Your task to perform on an android device: turn on translation in the chrome app Image 0: 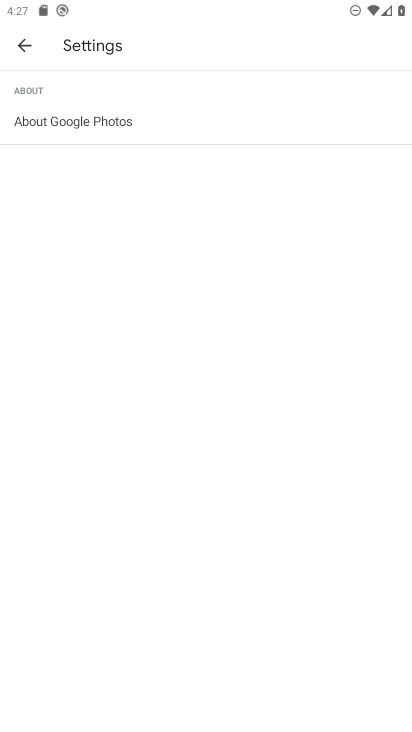
Step 0: press home button
Your task to perform on an android device: turn on translation in the chrome app Image 1: 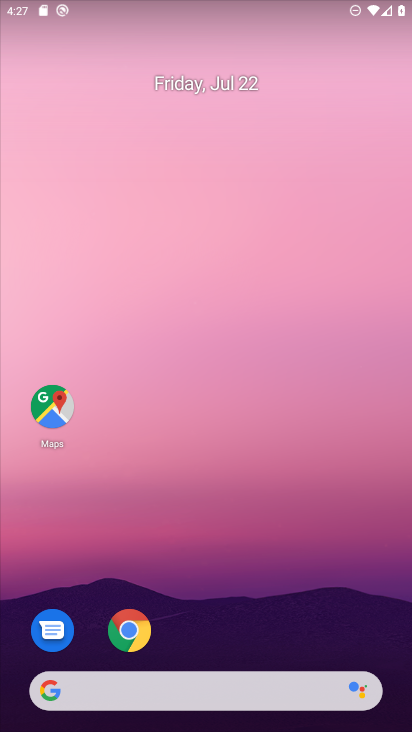
Step 1: click (122, 625)
Your task to perform on an android device: turn on translation in the chrome app Image 2: 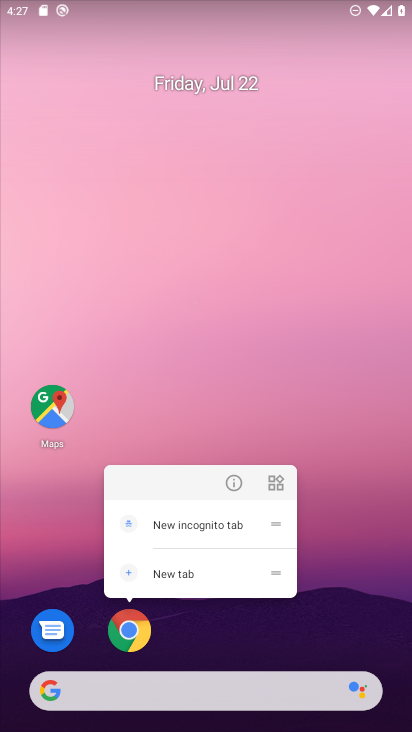
Step 2: click (135, 622)
Your task to perform on an android device: turn on translation in the chrome app Image 3: 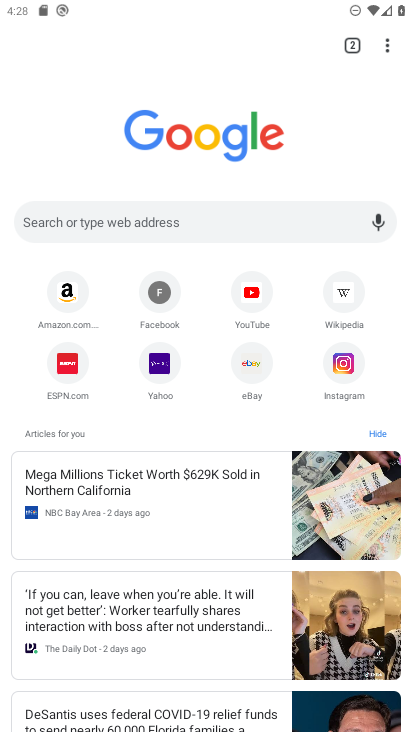
Step 3: click (386, 44)
Your task to perform on an android device: turn on translation in the chrome app Image 4: 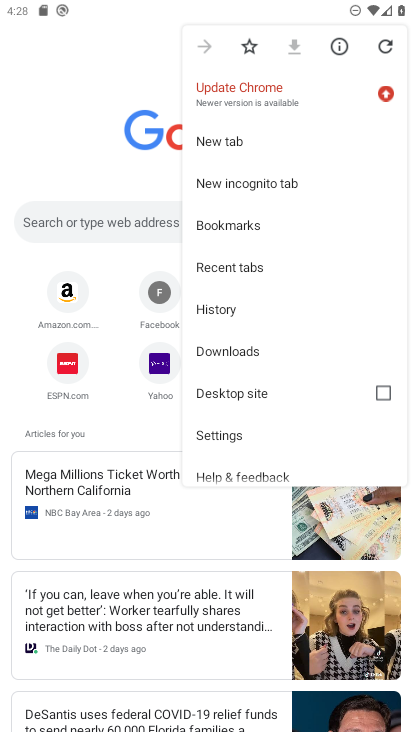
Step 4: click (216, 435)
Your task to perform on an android device: turn on translation in the chrome app Image 5: 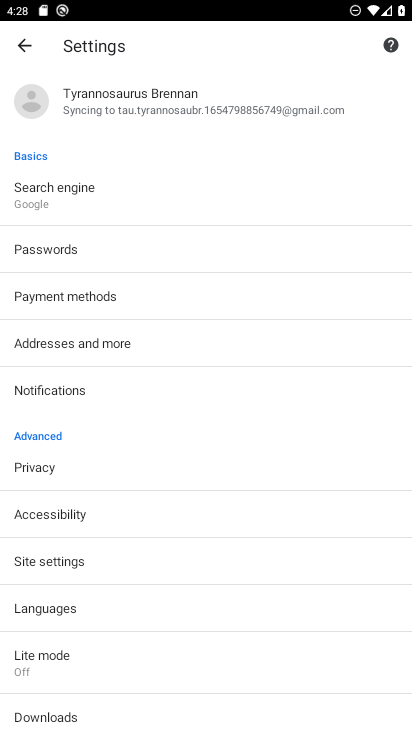
Step 5: click (78, 606)
Your task to perform on an android device: turn on translation in the chrome app Image 6: 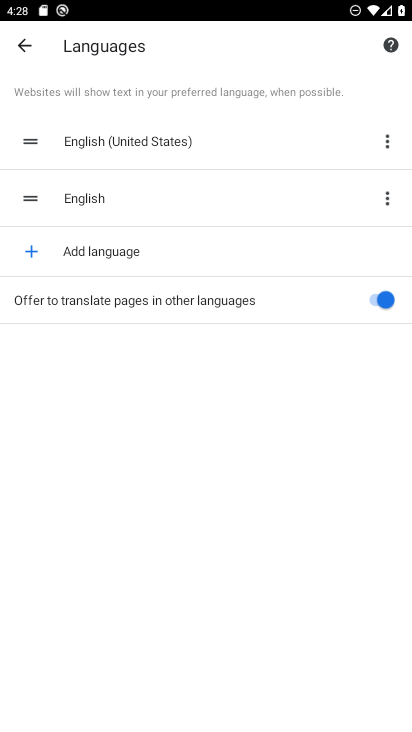
Step 6: task complete